Your task to perform on an android device: turn off priority inbox in the gmail app Image 0: 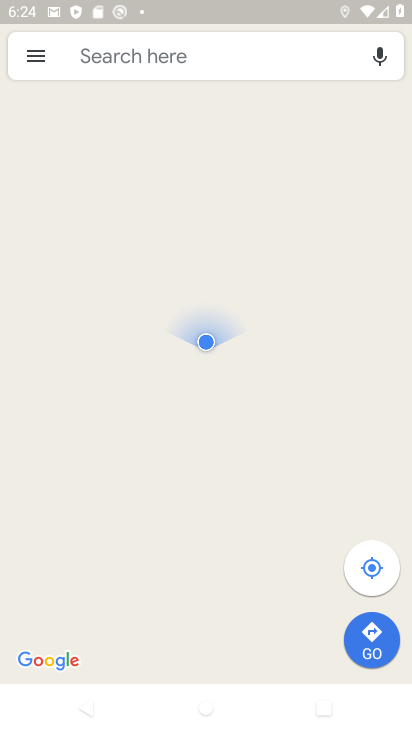
Step 0: press home button
Your task to perform on an android device: turn off priority inbox in the gmail app Image 1: 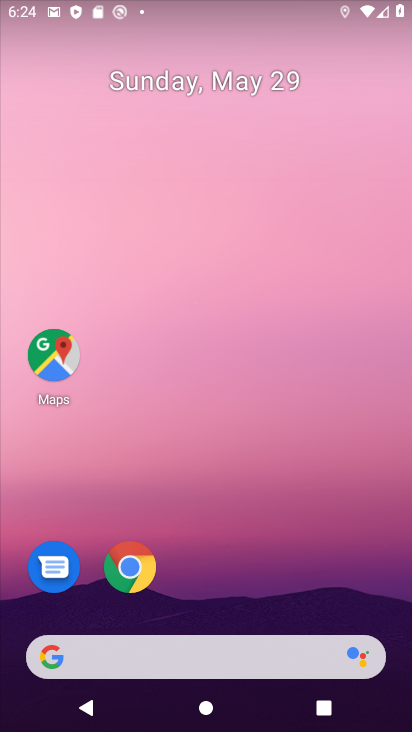
Step 1: drag from (290, 611) to (282, 57)
Your task to perform on an android device: turn off priority inbox in the gmail app Image 2: 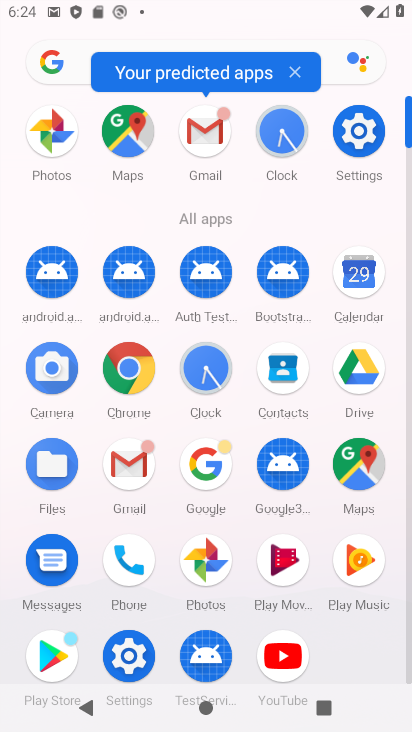
Step 2: click (137, 473)
Your task to perform on an android device: turn off priority inbox in the gmail app Image 3: 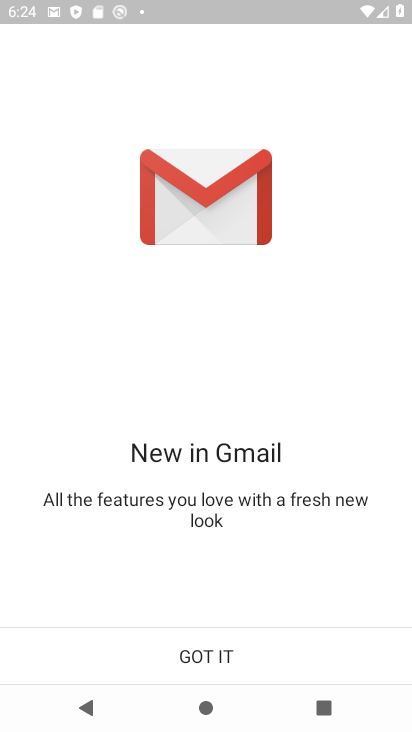
Step 3: click (250, 662)
Your task to perform on an android device: turn off priority inbox in the gmail app Image 4: 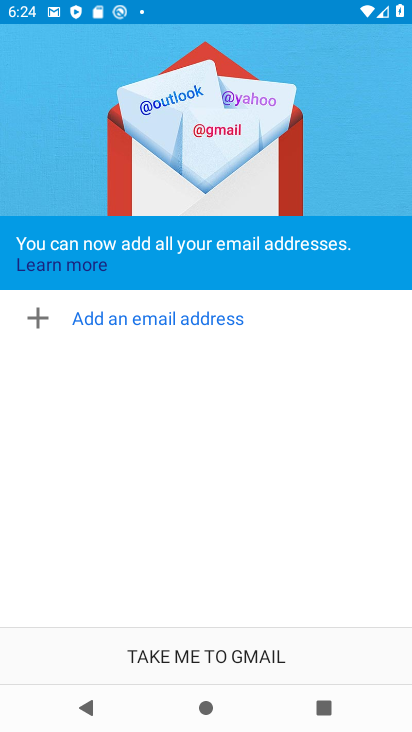
Step 4: click (250, 662)
Your task to perform on an android device: turn off priority inbox in the gmail app Image 5: 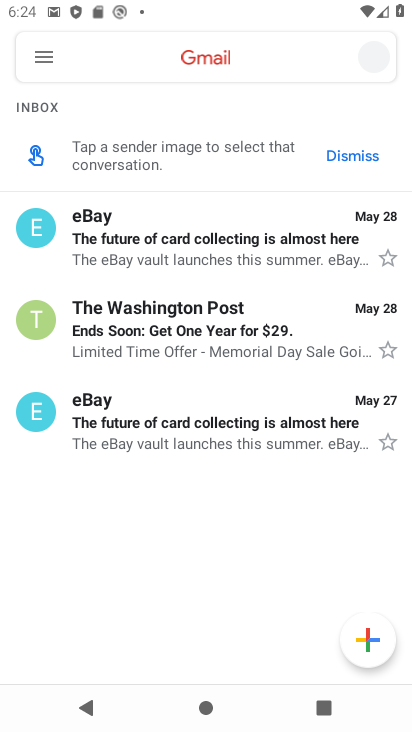
Step 5: click (42, 56)
Your task to perform on an android device: turn off priority inbox in the gmail app Image 6: 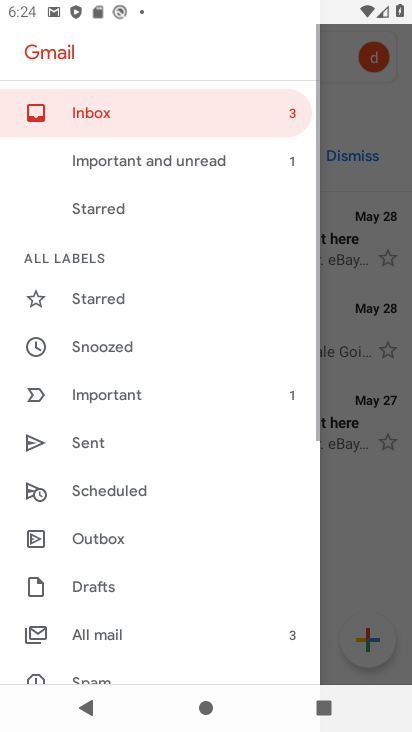
Step 6: drag from (107, 640) to (137, 93)
Your task to perform on an android device: turn off priority inbox in the gmail app Image 7: 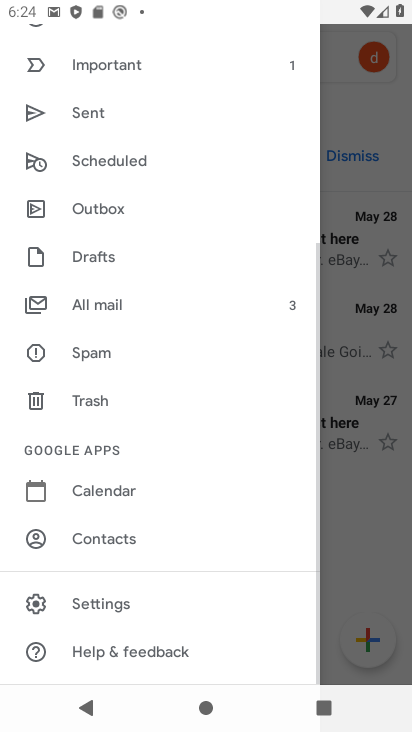
Step 7: click (149, 614)
Your task to perform on an android device: turn off priority inbox in the gmail app Image 8: 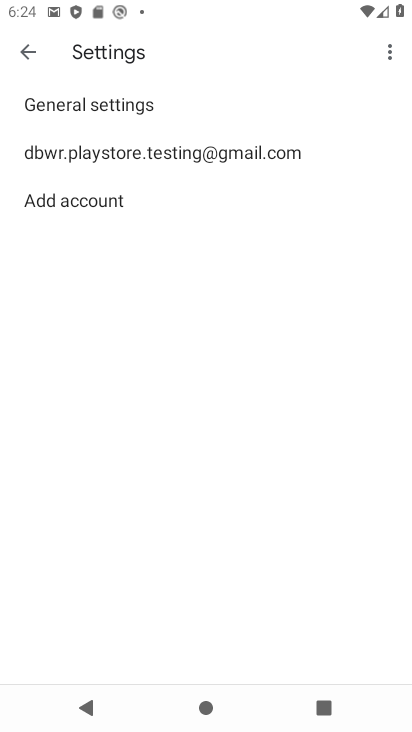
Step 8: click (114, 168)
Your task to perform on an android device: turn off priority inbox in the gmail app Image 9: 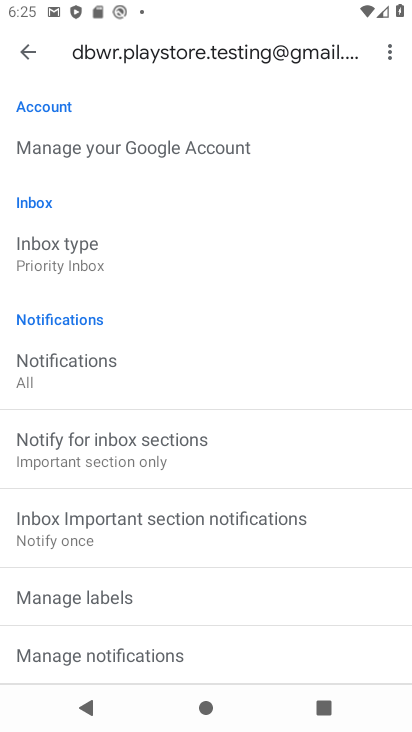
Step 9: click (87, 257)
Your task to perform on an android device: turn off priority inbox in the gmail app Image 10: 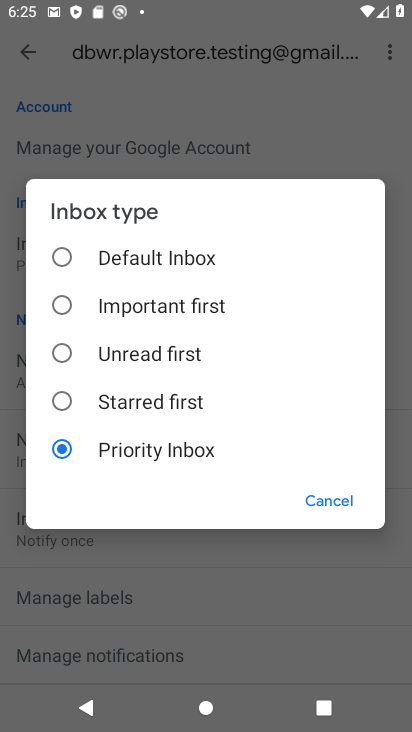
Step 10: click (68, 256)
Your task to perform on an android device: turn off priority inbox in the gmail app Image 11: 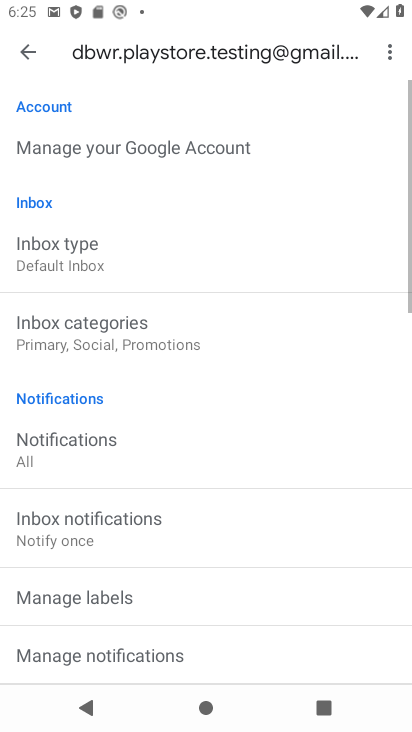
Step 11: task complete